Your task to perform on an android device: see tabs open on other devices in the chrome app Image 0: 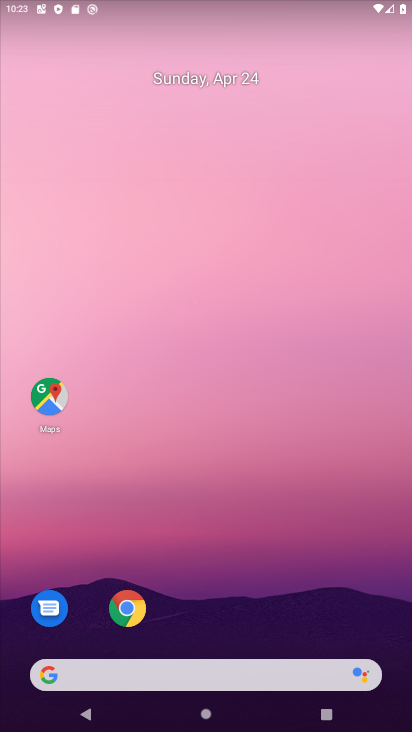
Step 0: press home button
Your task to perform on an android device: see tabs open on other devices in the chrome app Image 1: 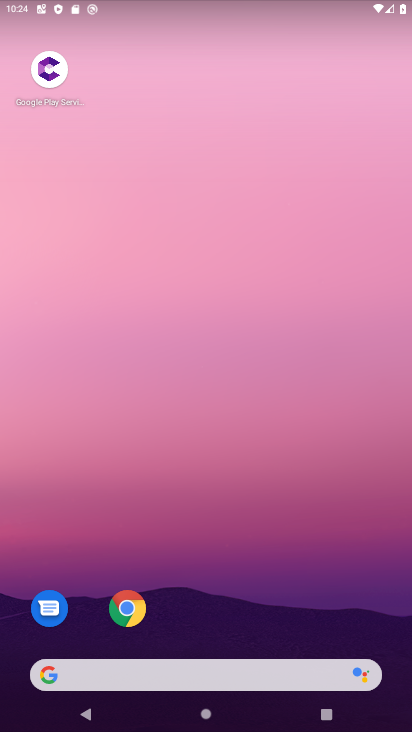
Step 1: drag from (263, 699) to (237, 100)
Your task to perform on an android device: see tabs open on other devices in the chrome app Image 2: 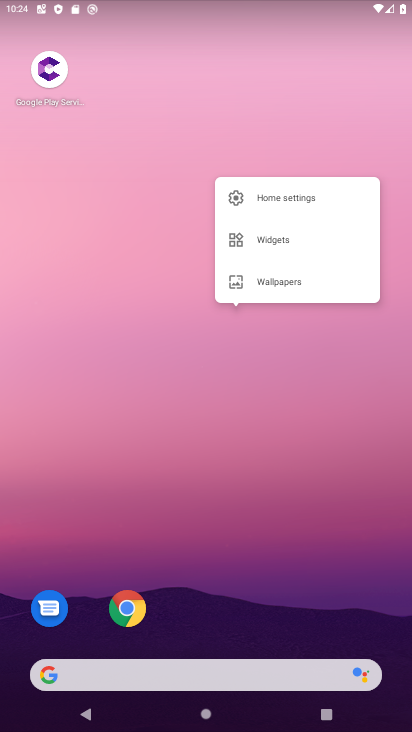
Step 2: drag from (242, 708) to (177, 165)
Your task to perform on an android device: see tabs open on other devices in the chrome app Image 3: 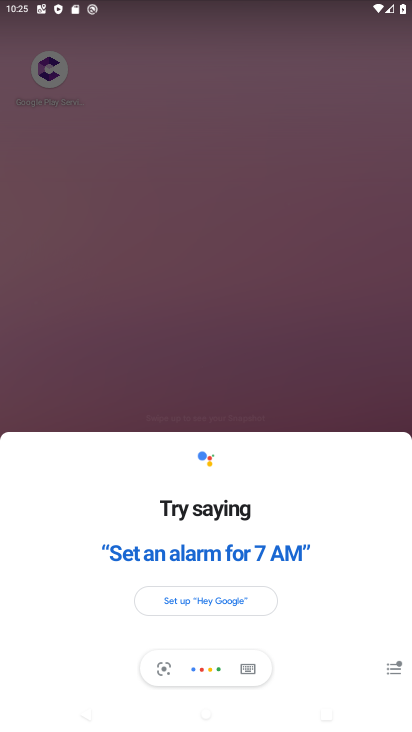
Step 3: drag from (230, 698) to (204, 405)
Your task to perform on an android device: see tabs open on other devices in the chrome app Image 4: 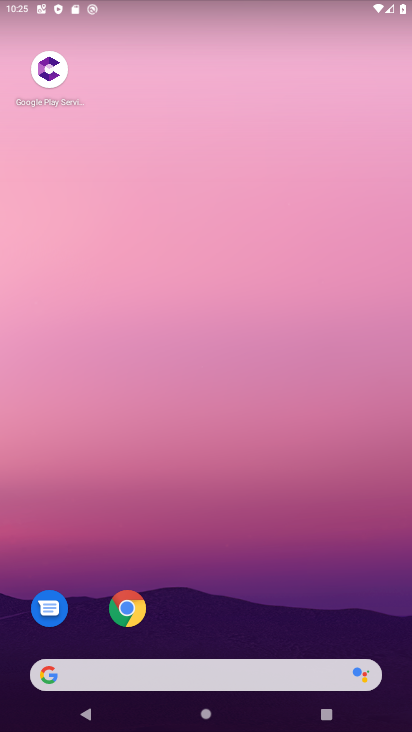
Step 4: click (234, 338)
Your task to perform on an android device: see tabs open on other devices in the chrome app Image 5: 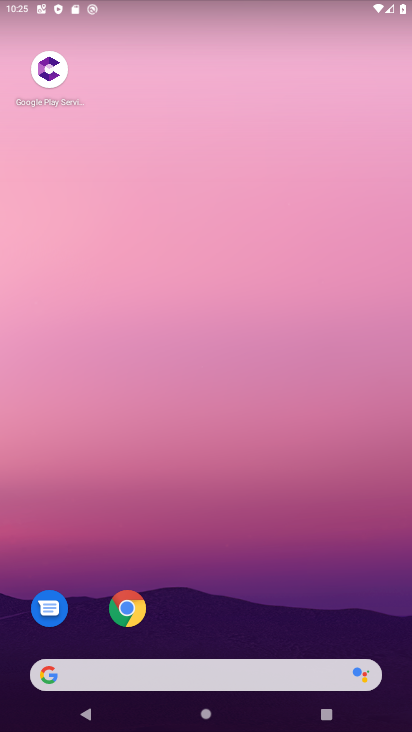
Step 5: drag from (243, 695) to (188, 336)
Your task to perform on an android device: see tabs open on other devices in the chrome app Image 6: 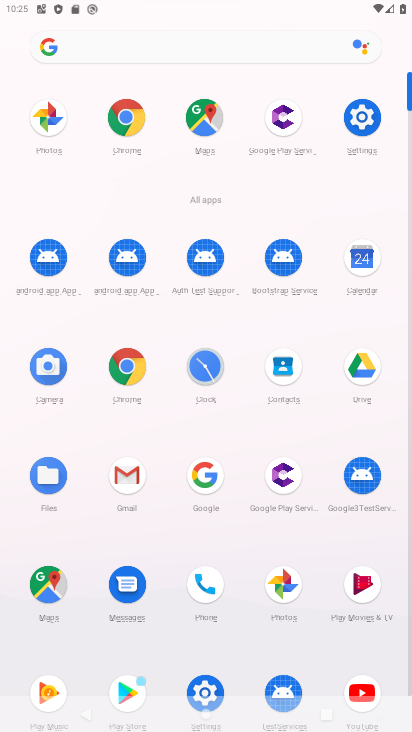
Step 6: click (131, 135)
Your task to perform on an android device: see tabs open on other devices in the chrome app Image 7: 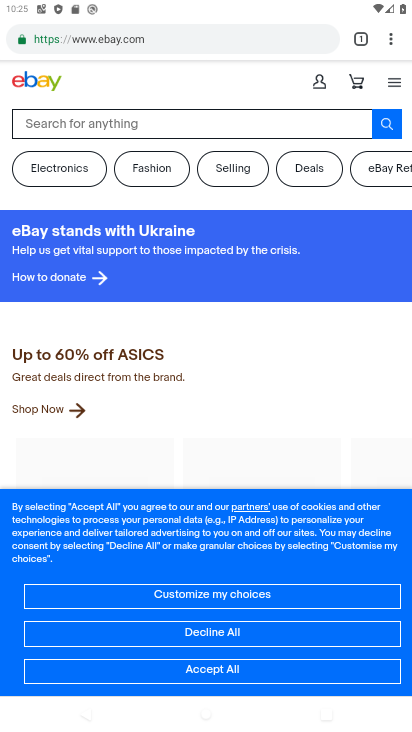
Step 7: click (385, 42)
Your task to perform on an android device: see tabs open on other devices in the chrome app Image 8: 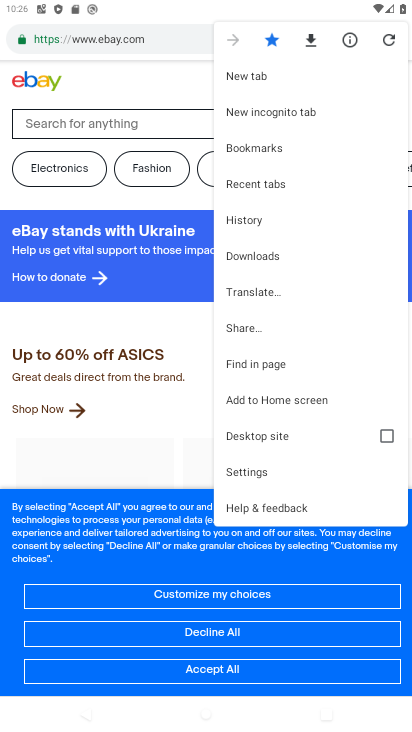
Step 8: click (67, 93)
Your task to perform on an android device: see tabs open on other devices in the chrome app Image 9: 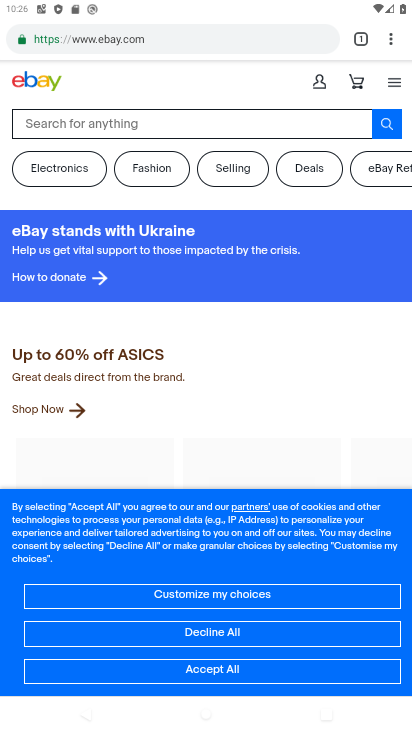
Step 9: click (367, 43)
Your task to perform on an android device: see tabs open on other devices in the chrome app Image 10: 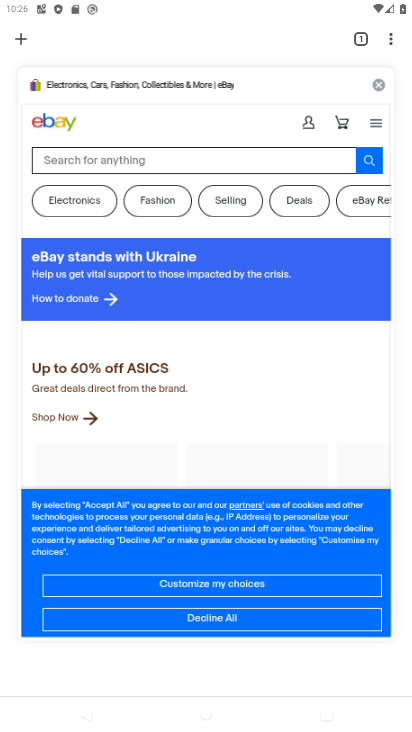
Step 10: task complete